Your task to perform on an android device: Show me productivity apps on the Play Store Image 0: 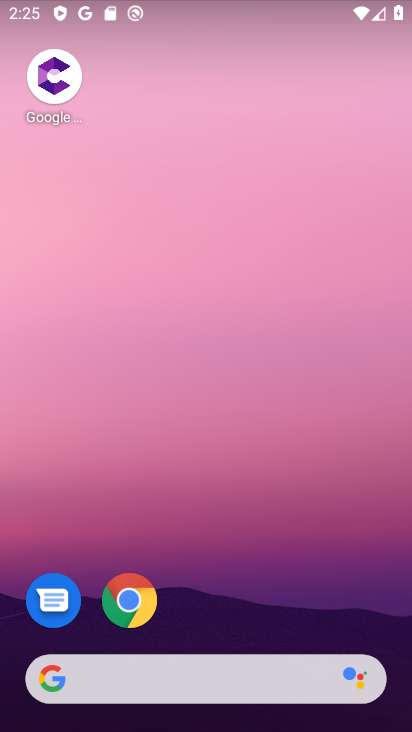
Step 0: drag from (164, 641) to (283, 191)
Your task to perform on an android device: Show me productivity apps on the Play Store Image 1: 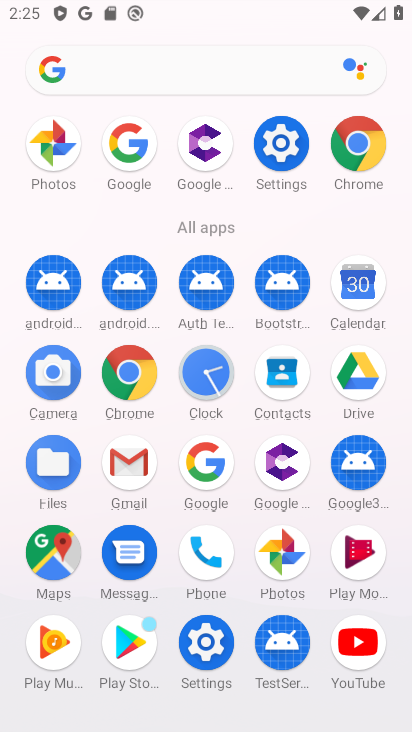
Step 1: click (140, 656)
Your task to perform on an android device: Show me productivity apps on the Play Store Image 2: 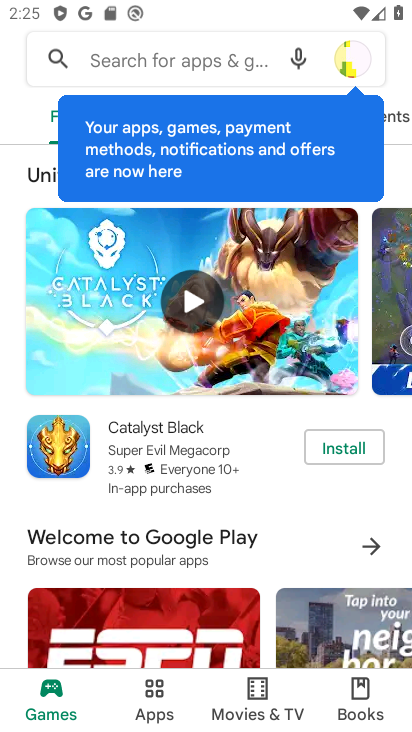
Step 2: click (162, 700)
Your task to perform on an android device: Show me productivity apps on the Play Store Image 3: 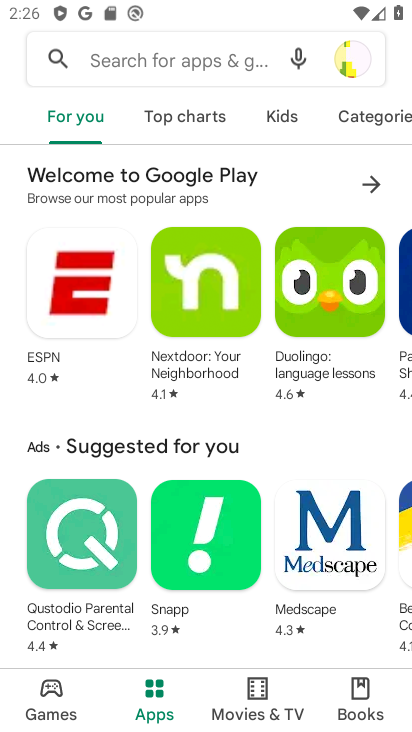
Step 3: click (384, 122)
Your task to perform on an android device: Show me productivity apps on the Play Store Image 4: 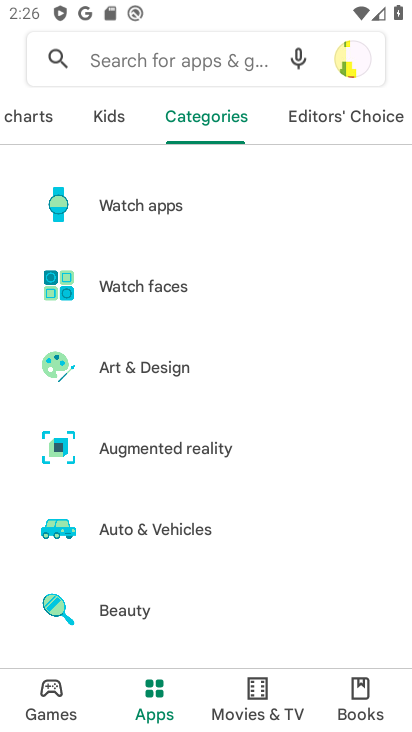
Step 4: drag from (160, 591) to (268, 141)
Your task to perform on an android device: Show me productivity apps on the Play Store Image 5: 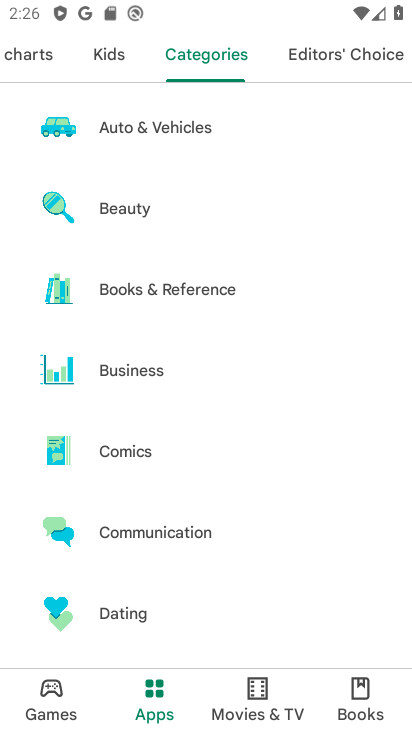
Step 5: drag from (142, 564) to (272, 165)
Your task to perform on an android device: Show me productivity apps on the Play Store Image 6: 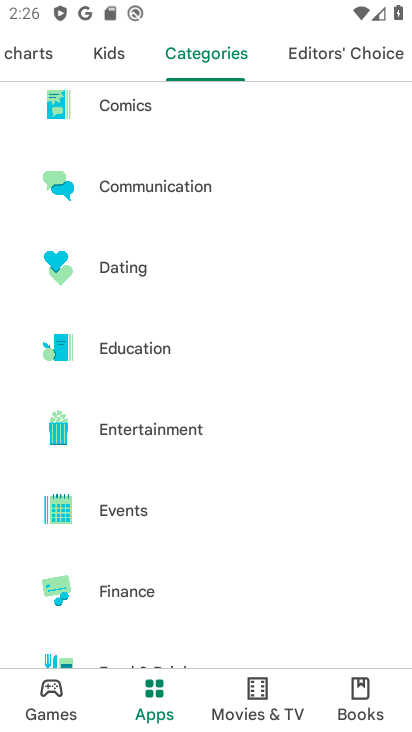
Step 6: drag from (153, 585) to (279, 196)
Your task to perform on an android device: Show me productivity apps on the Play Store Image 7: 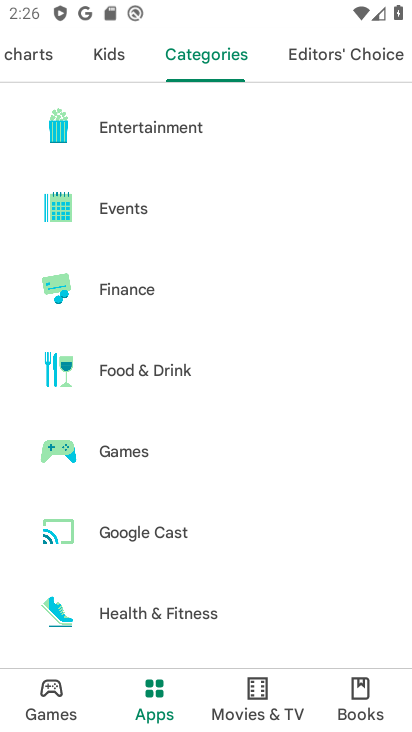
Step 7: drag from (134, 571) to (270, 155)
Your task to perform on an android device: Show me productivity apps on the Play Store Image 8: 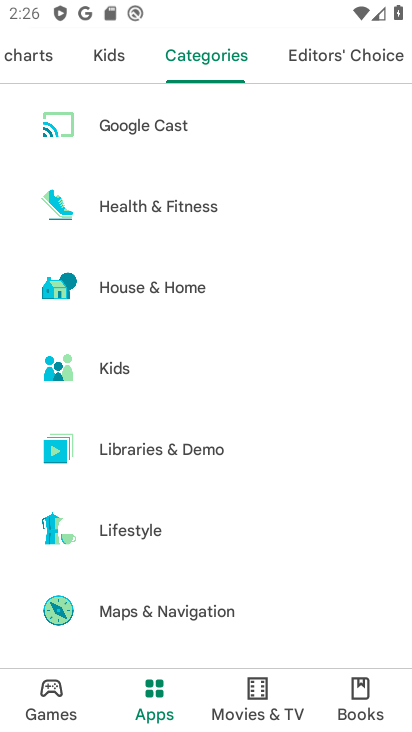
Step 8: drag from (173, 531) to (293, 108)
Your task to perform on an android device: Show me productivity apps on the Play Store Image 9: 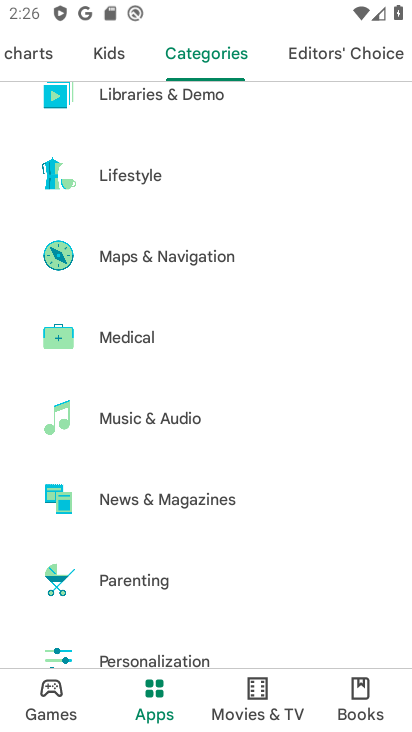
Step 9: drag from (192, 528) to (285, 82)
Your task to perform on an android device: Show me productivity apps on the Play Store Image 10: 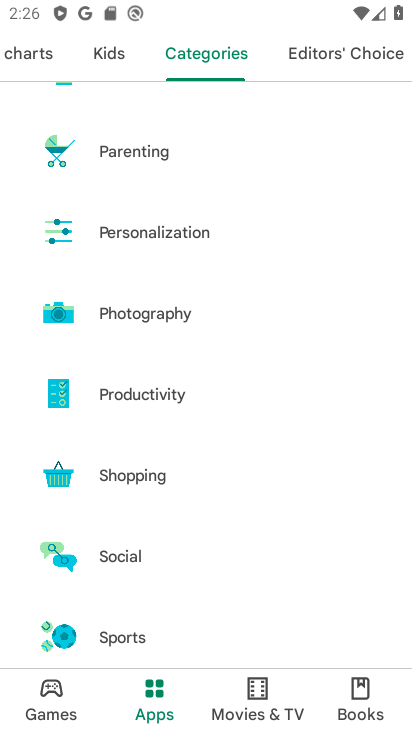
Step 10: click (197, 397)
Your task to perform on an android device: Show me productivity apps on the Play Store Image 11: 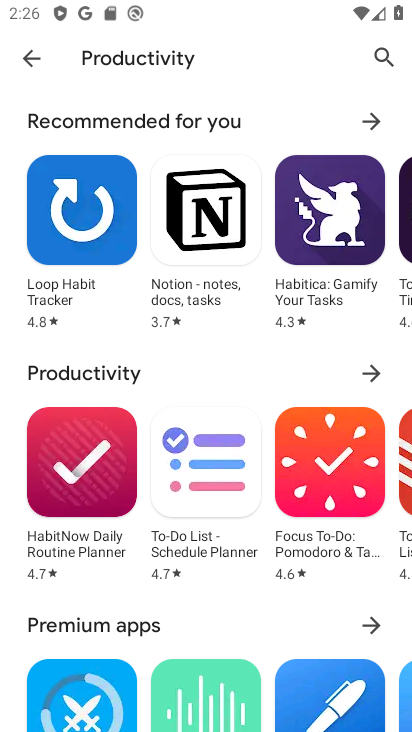
Step 11: task complete